Your task to perform on an android device: change the clock style Image 0: 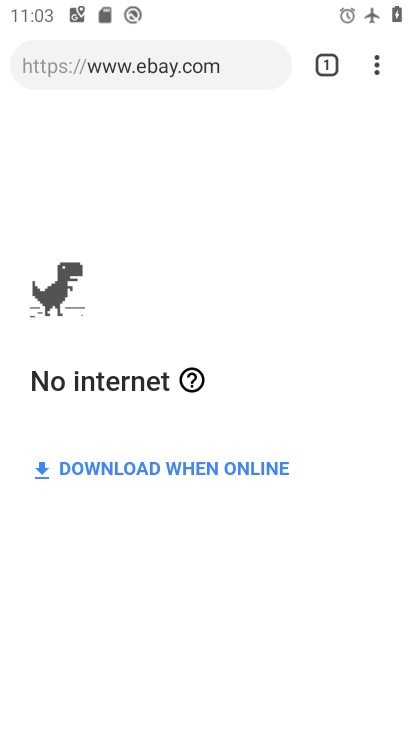
Step 0: press home button
Your task to perform on an android device: change the clock style Image 1: 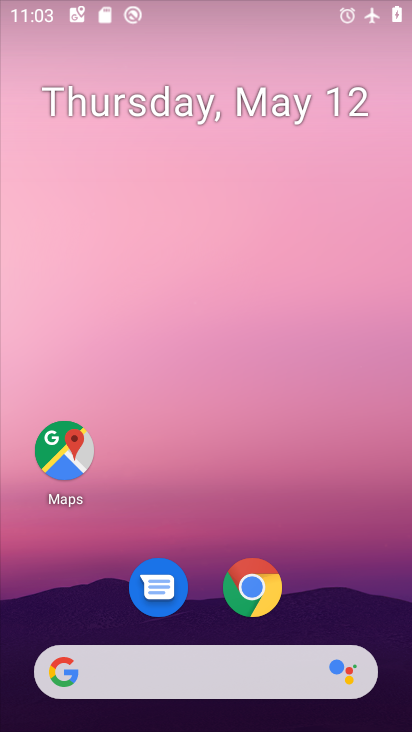
Step 1: drag from (386, 624) to (299, 67)
Your task to perform on an android device: change the clock style Image 2: 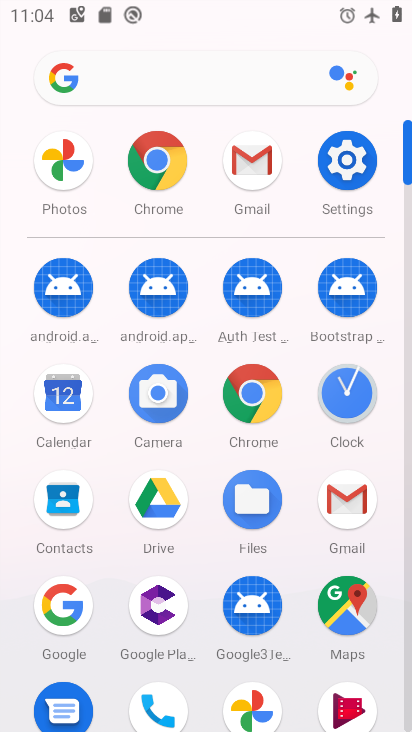
Step 2: click (334, 392)
Your task to perform on an android device: change the clock style Image 3: 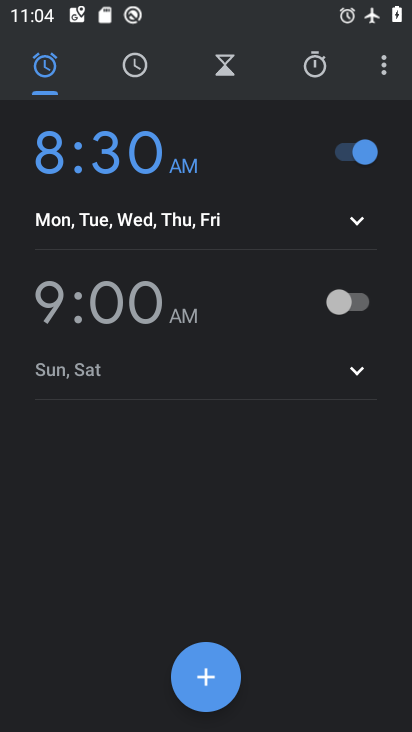
Step 3: click (383, 70)
Your task to perform on an android device: change the clock style Image 4: 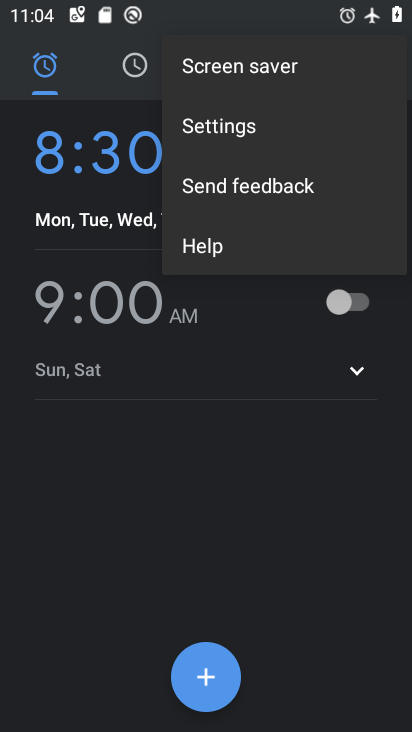
Step 4: click (249, 127)
Your task to perform on an android device: change the clock style Image 5: 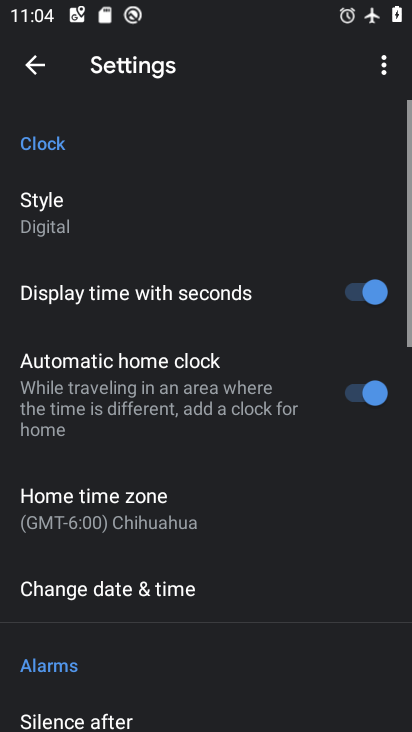
Step 5: click (142, 202)
Your task to perform on an android device: change the clock style Image 6: 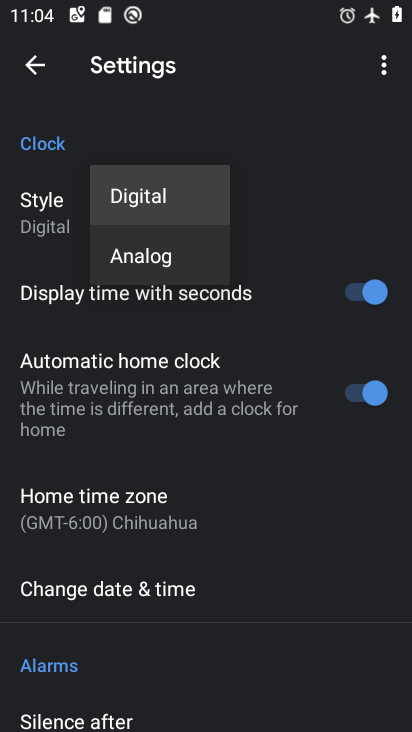
Step 6: click (117, 245)
Your task to perform on an android device: change the clock style Image 7: 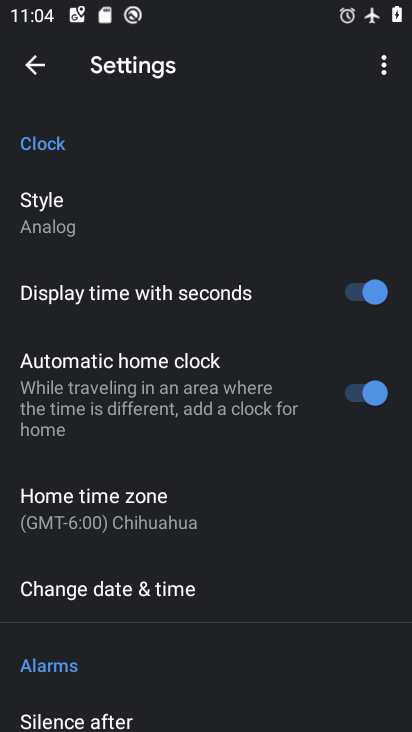
Step 7: task complete